Your task to perform on an android device: open app "Truecaller" Image 0: 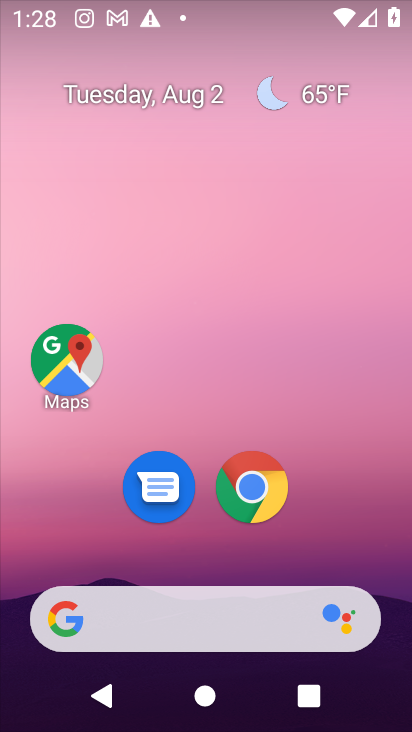
Step 0: drag from (205, 611) to (301, 169)
Your task to perform on an android device: open app "Truecaller" Image 1: 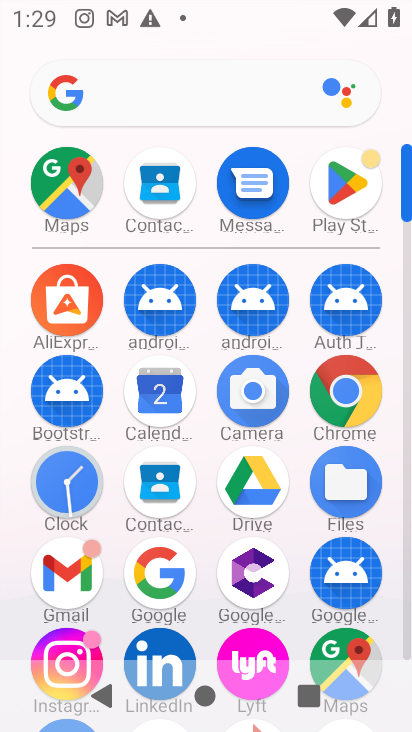
Step 1: click (368, 185)
Your task to perform on an android device: open app "Truecaller" Image 2: 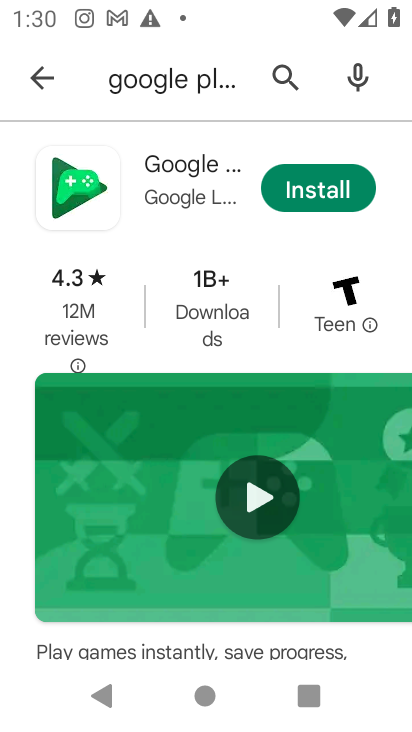
Step 2: click (38, 68)
Your task to perform on an android device: open app "Truecaller" Image 3: 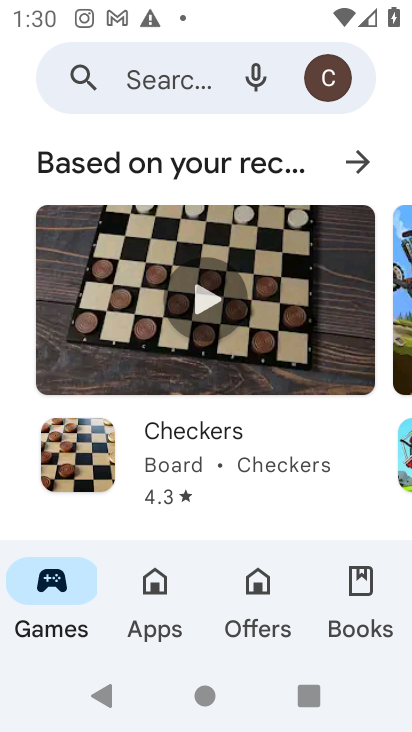
Step 3: click (99, 82)
Your task to perform on an android device: open app "Truecaller" Image 4: 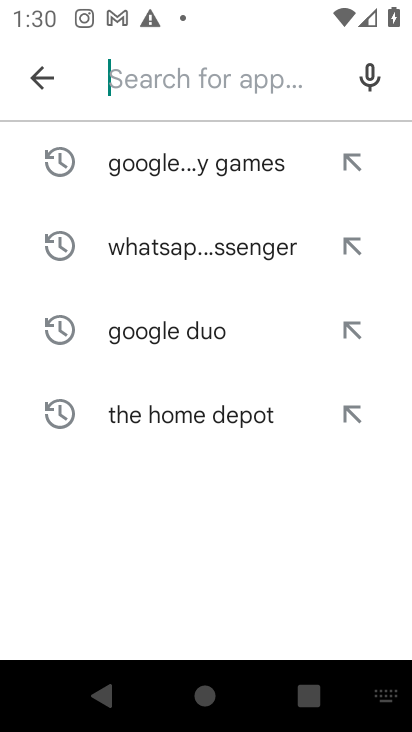
Step 4: type "Truecaller"
Your task to perform on an android device: open app "Truecaller" Image 5: 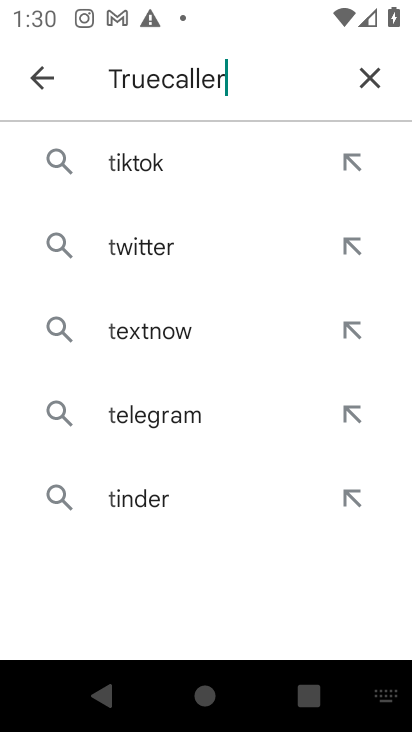
Step 5: type ""
Your task to perform on an android device: open app "Truecaller" Image 6: 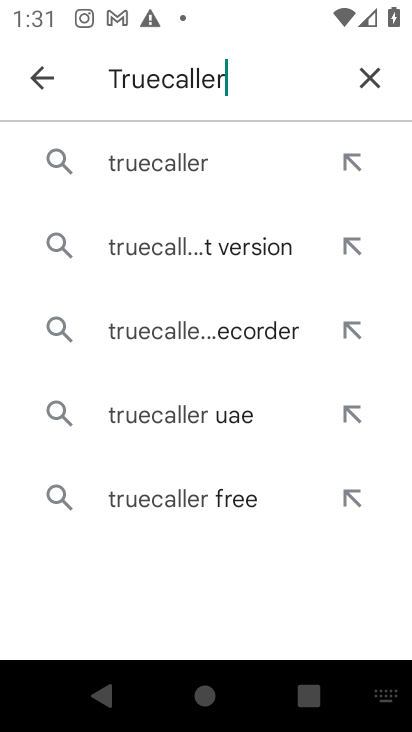
Step 6: click (271, 150)
Your task to perform on an android device: open app "Truecaller" Image 7: 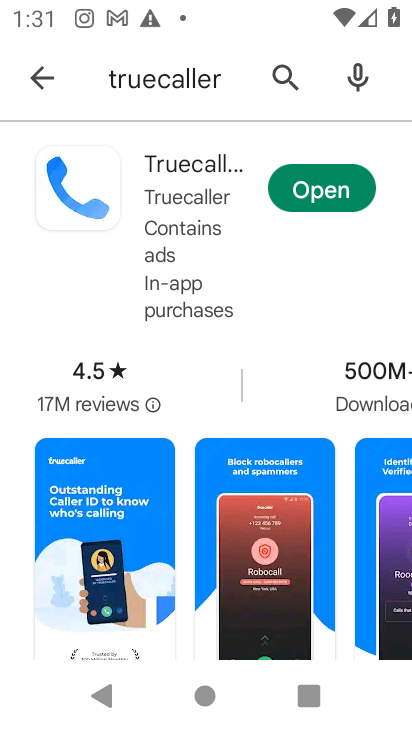
Step 7: click (321, 193)
Your task to perform on an android device: open app "Truecaller" Image 8: 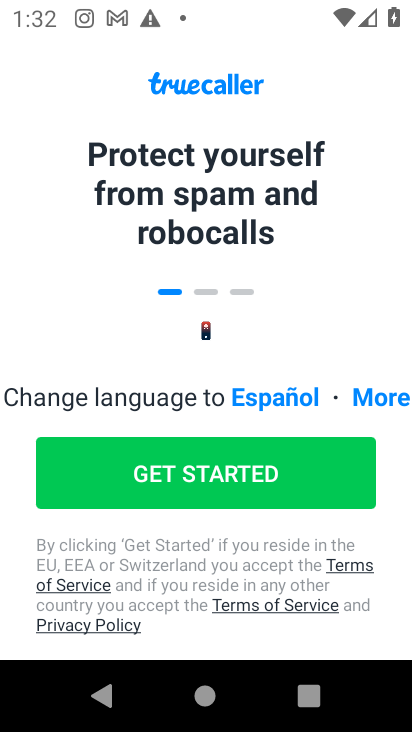
Step 8: task complete